Your task to perform on an android device: Clear the shopping cart on ebay.com. Add dell xps to the cart on ebay.com Image 0: 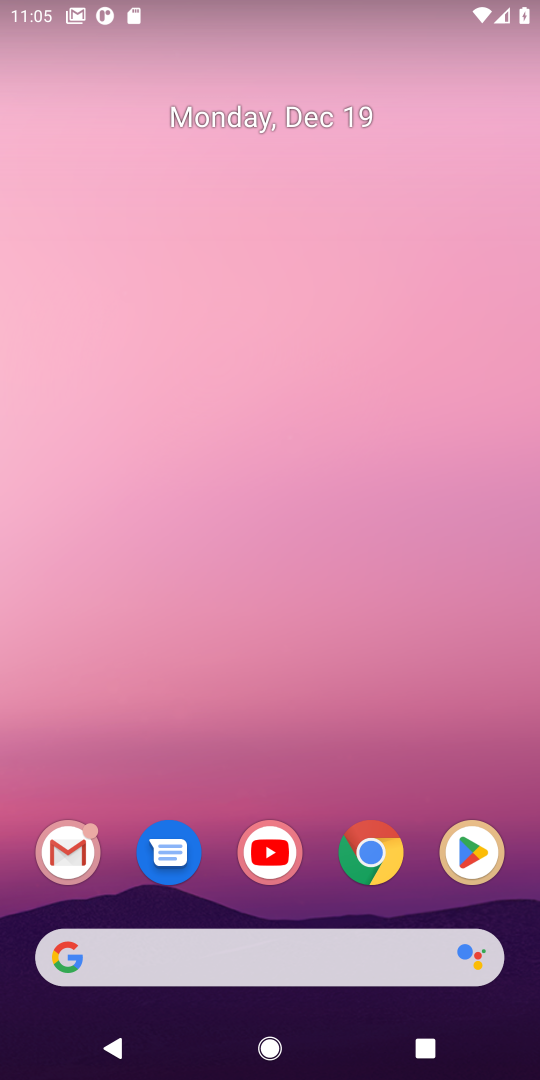
Step 0: click (376, 854)
Your task to perform on an android device: Clear the shopping cart on ebay.com. Add dell xps to the cart on ebay.com Image 1: 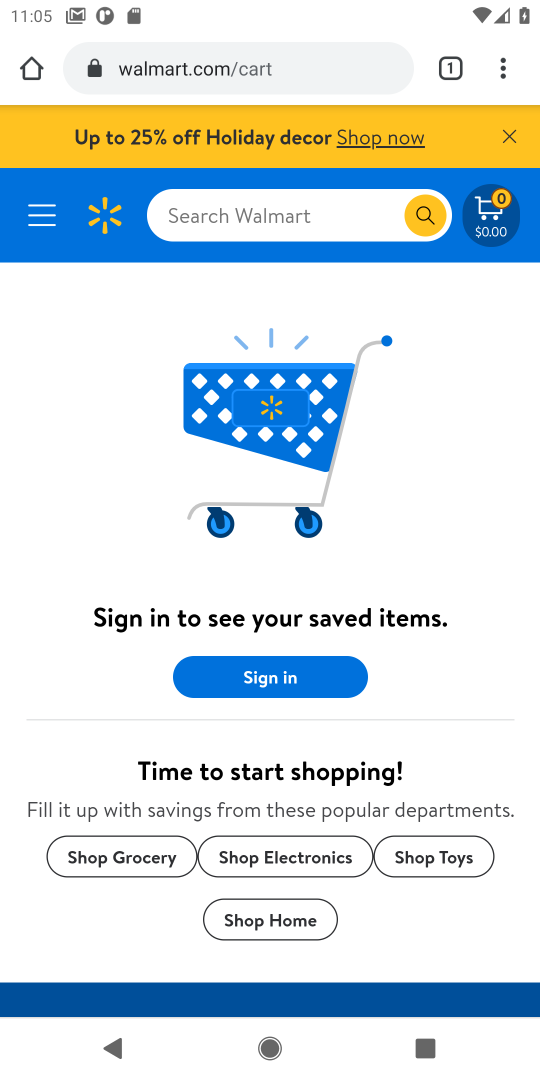
Step 1: click (203, 61)
Your task to perform on an android device: Clear the shopping cart on ebay.com. Add dell xps to the cart on ebay.com Image 2: 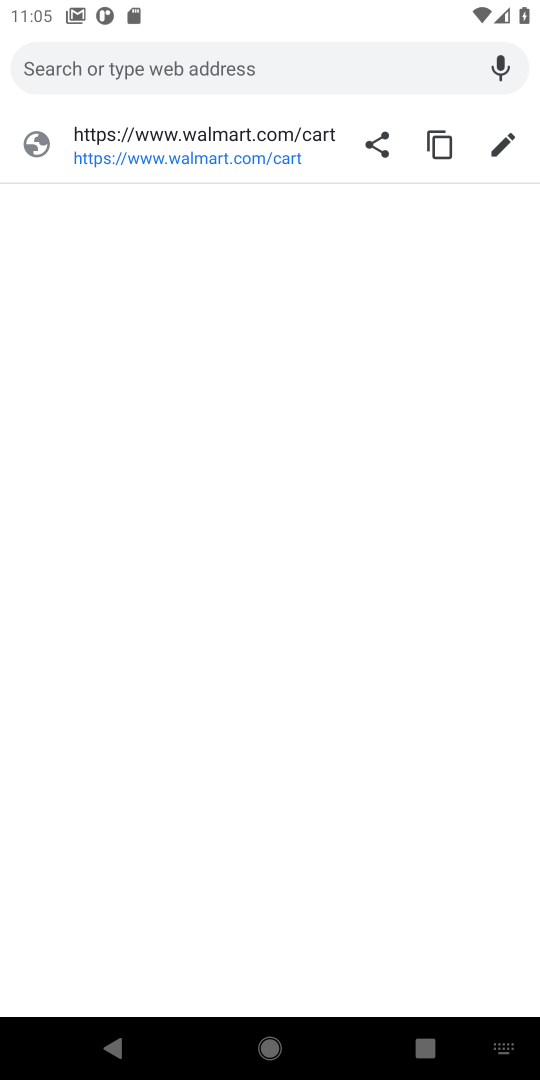
Step 2: type "ebay.com"
Your task to perform on an android device: Clear the shopping cart on ebay.com. Add dell xps to the cart on ebay.com Image 3: 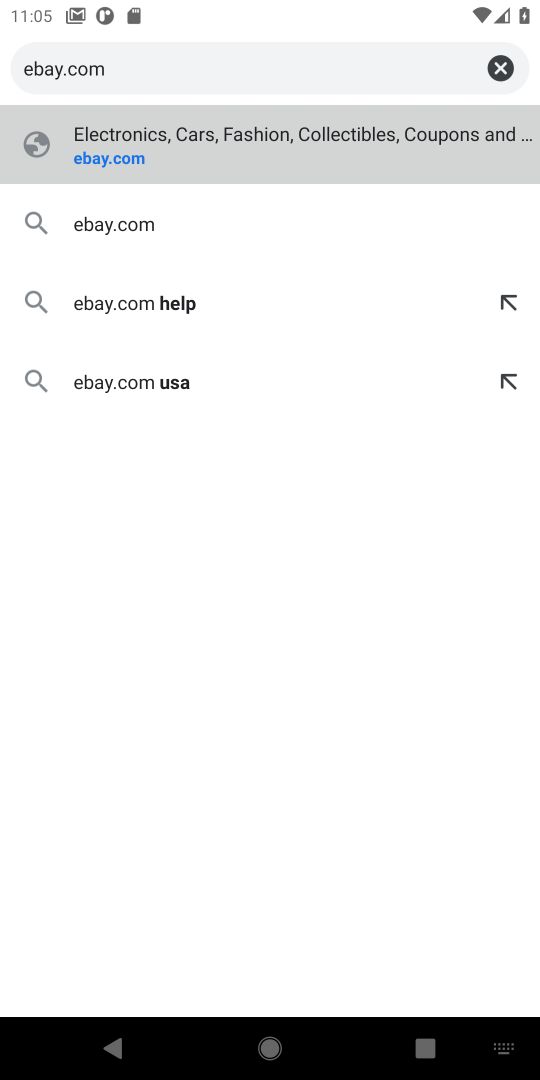
Step 3: click (90, 163)
Your task to perform on an android device: Clear the shopping cart on ebay.com. Add dell xps to the cart on ebay.com Image 4: 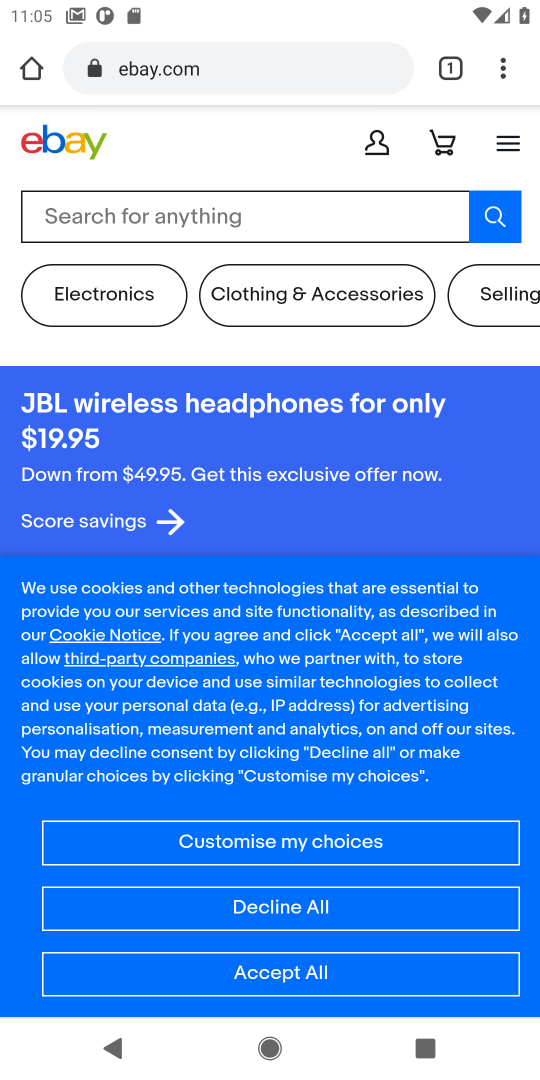
Step 4: click (445, 140)
Your task to perform on an android device: Clear the shopping cart on ebay.com. Add dell xps to the cart on ebay.com Image 5: 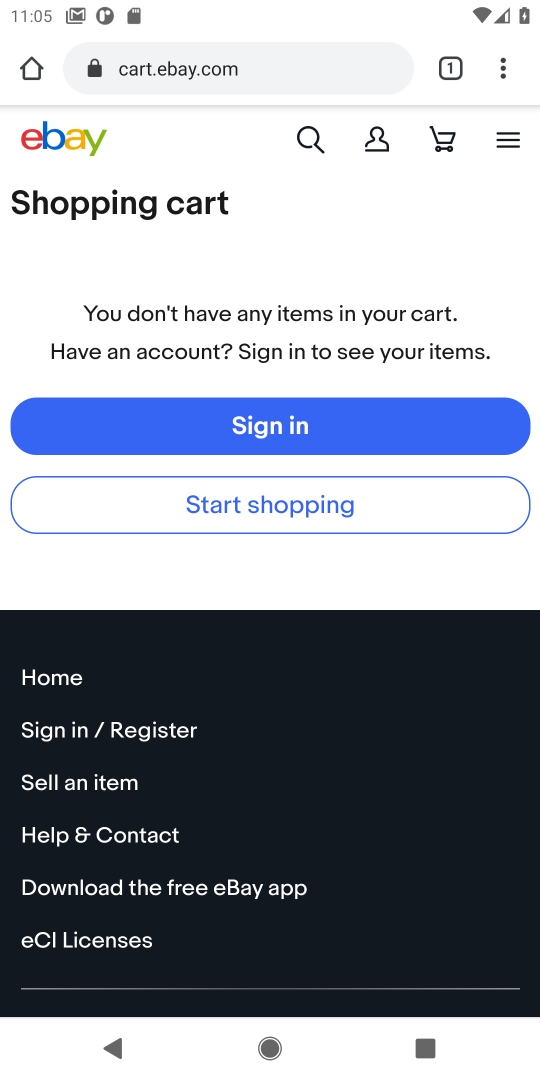
Step 5: click (303, 132)
Your task to perform on an android device: Clear the shopping cart on ebay.com. Add dell xps to the cart on ebay.com Image 6: 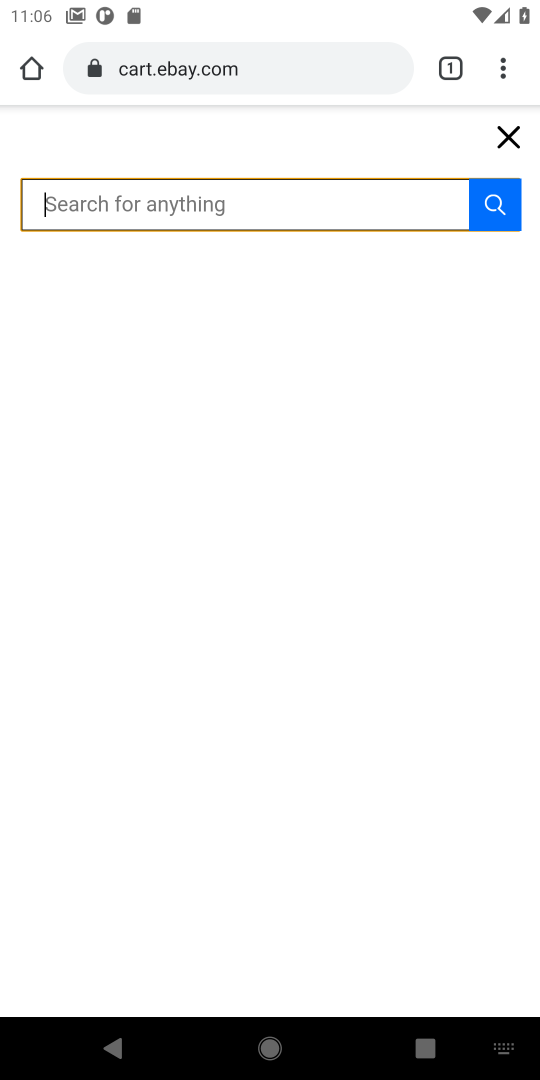
Step 6: type "dell xps"
Your task to perform on an android device: Clear the shopping cart on ebay.com. Add dell xps to the cart on ebay.com Image 7: 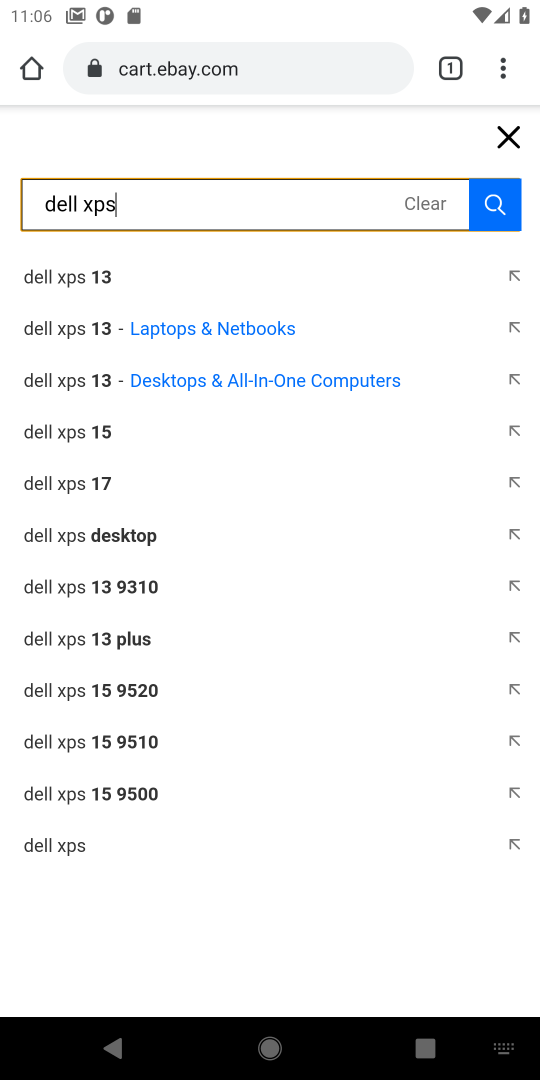
Step 7: click (41, 850)
Your task to perform on an android device: Clear the shopping cart on ebay.com. Add dell xps to the cart on ebay.com Image 8: 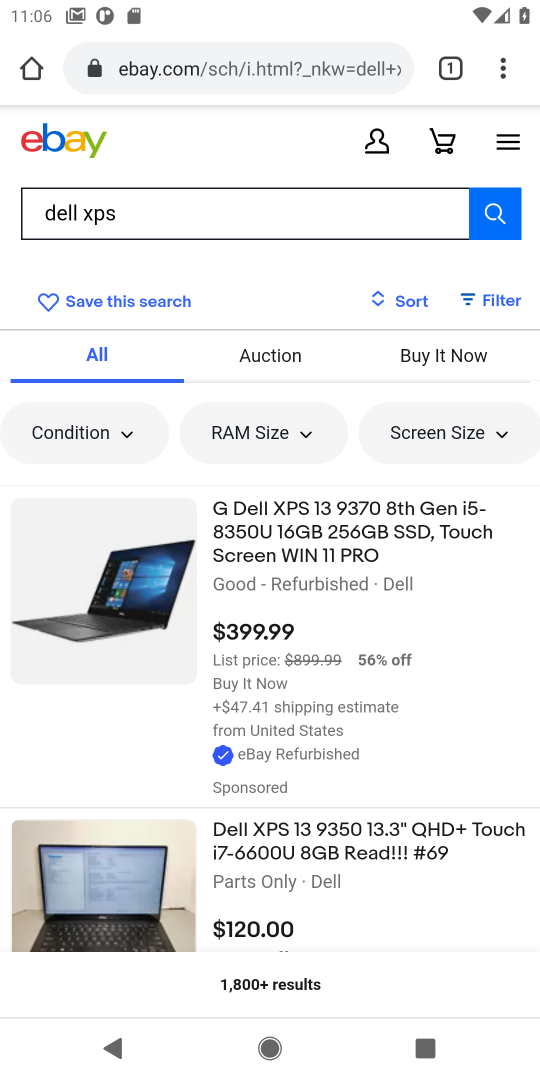
Step 8: click (281, 554)
Your task to perform on an android device: Clear the shopping cart on ebay.com. Add dell xps to the cart on ebay.com Image 9: 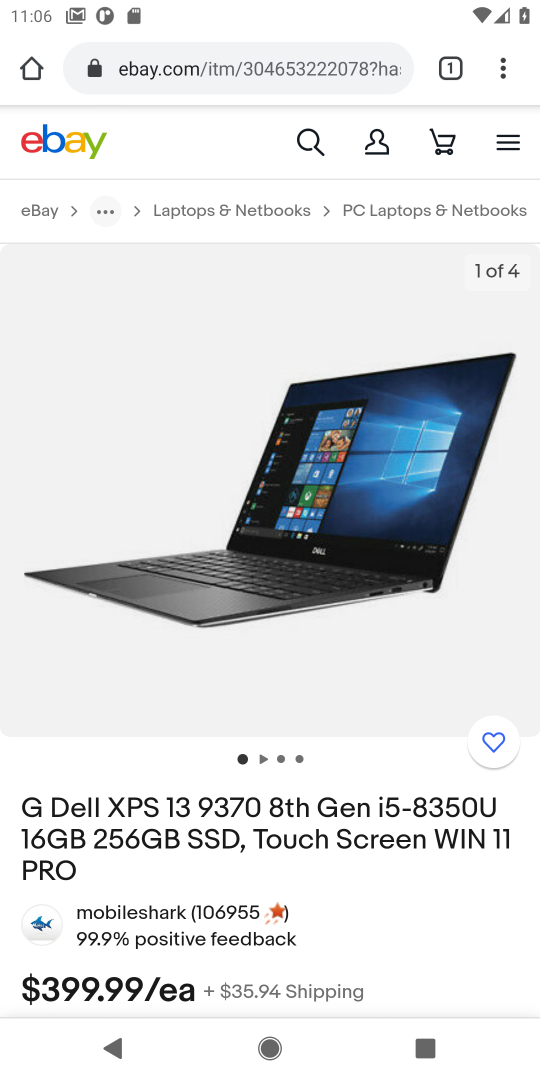
Step 9: drag from (232, 753) to (216, 402)
Your task to perform on an android device: Clear the shopping cart on ebay.com. Add dell xps to the cart on ebay.com Image 10: 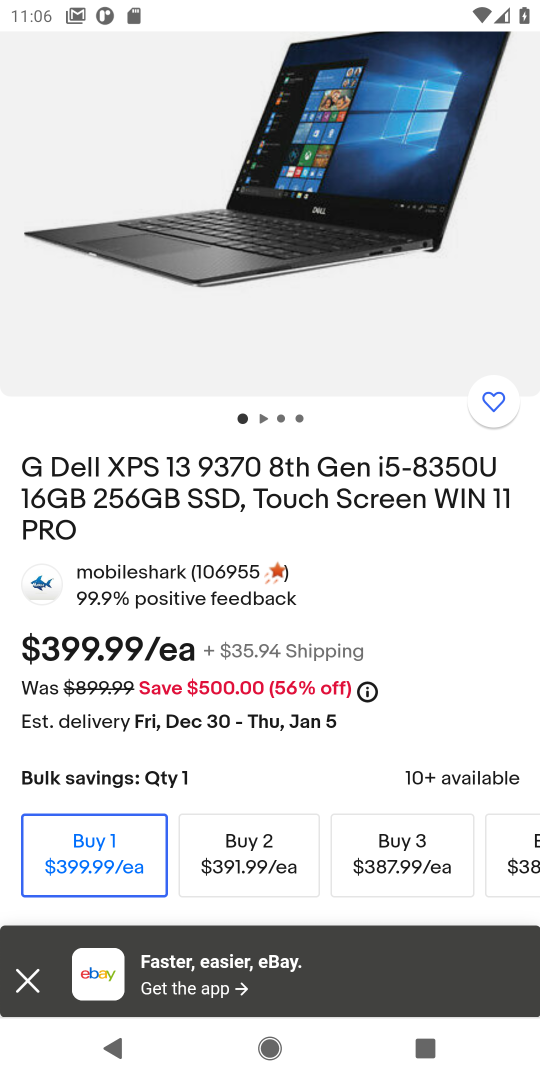
Step 10: drag from (201, 640) to (231, 221)
Your task to perform on an android device: Clear the shopping cart on ebay.com. Add dell xps to the cart on ebay.com Image 11: 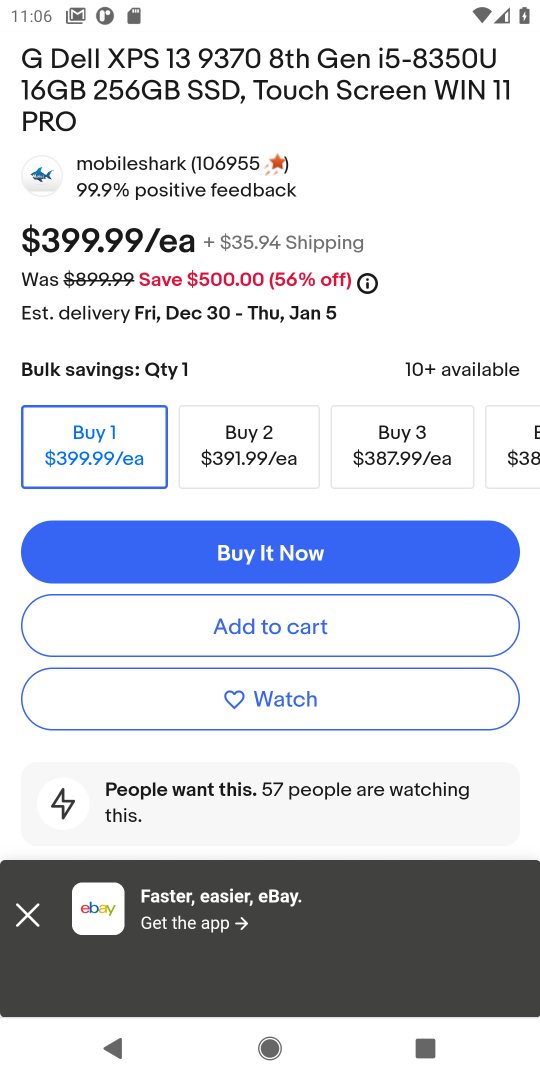
Step 11: click (221, 627)
Your task to perform on an android device: Clear the shopping cart on ebay.com. Add dell xps to the cart on ebay.com Image 12: 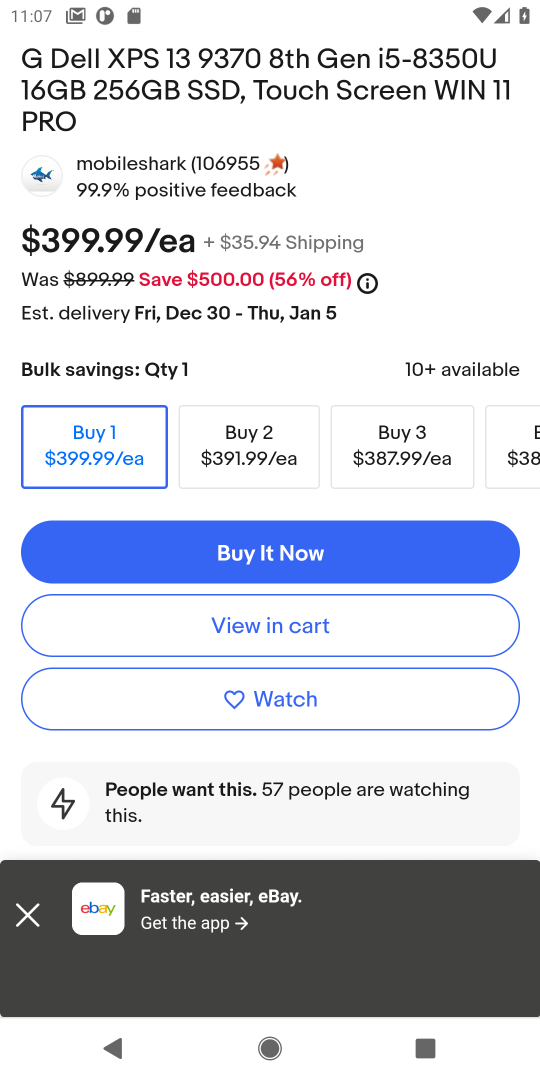
Step 12: task complete